Your task to perform on an android device: Open settings Image 0: 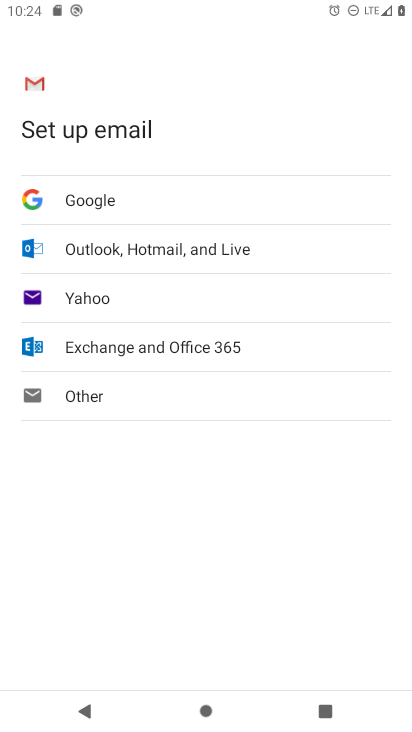
Step 0: press home button
Your task to perform on an android device: Open settings Image 1: 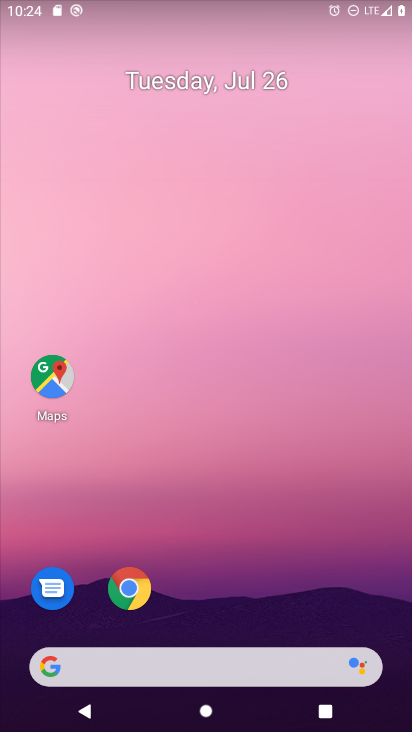
Step 1: drag from (243, 617) to (243, 166)
Your task to perform on an android device: Open settings Image 2: 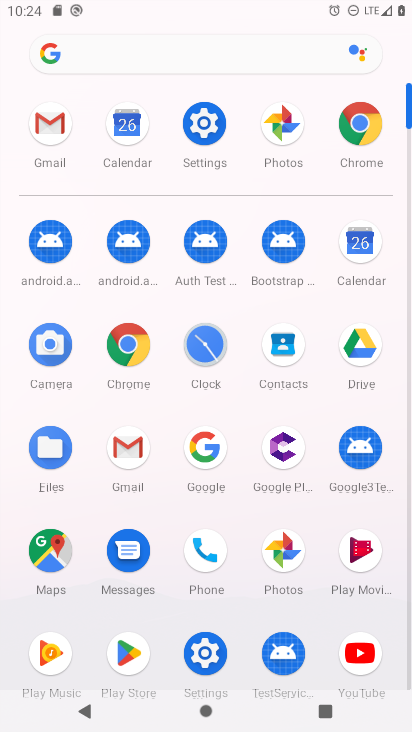
Step 2: click (208, 156)
Your task to perform on an android device: Open settings Image 3: 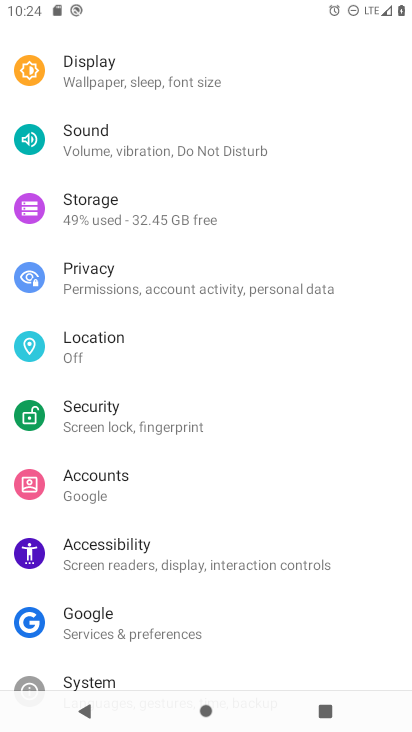
Step 3: task complete